Your task to perform on an android device: turn on location history Image 0: 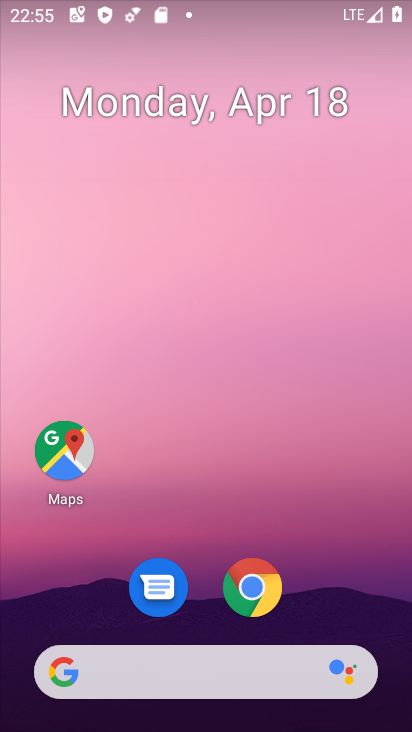
Step 0: drag from (344, 583) to (366, 102)
Your task to perform on an android device: turn on location history Image 1: 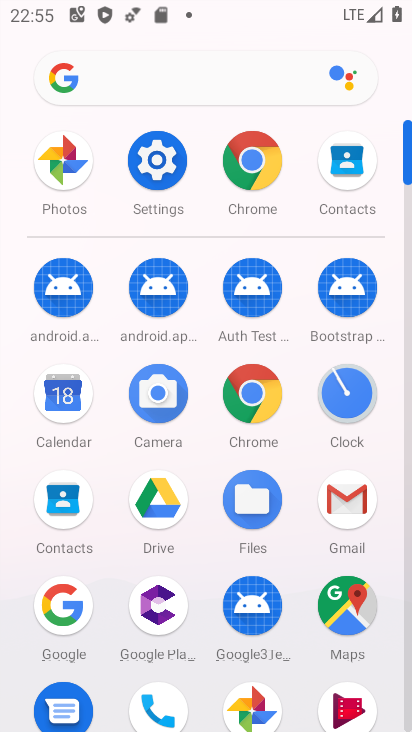
Step 1: click (343, 622)
Your task to perform on an android device: turn on location history Image 2: 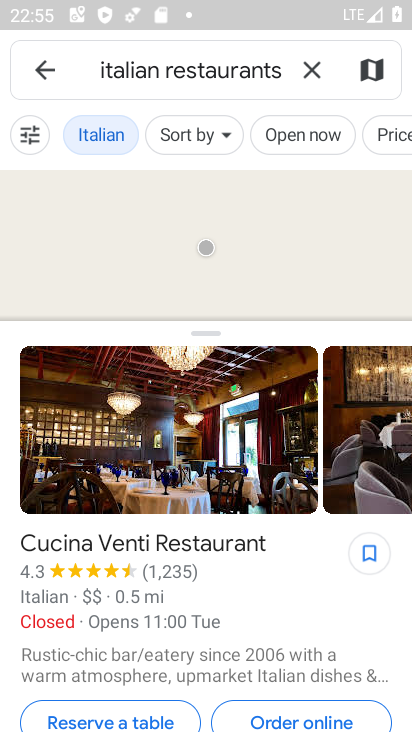
Step 2: click (31, 74)
Your task to perform on an android device: turn on location history Image 3: 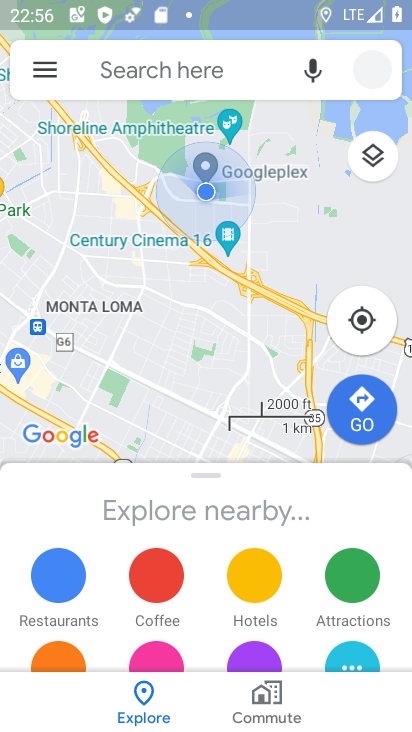
Step 3: click (48, 72)
Your task to perform on an android device: turn on location history Image 4: 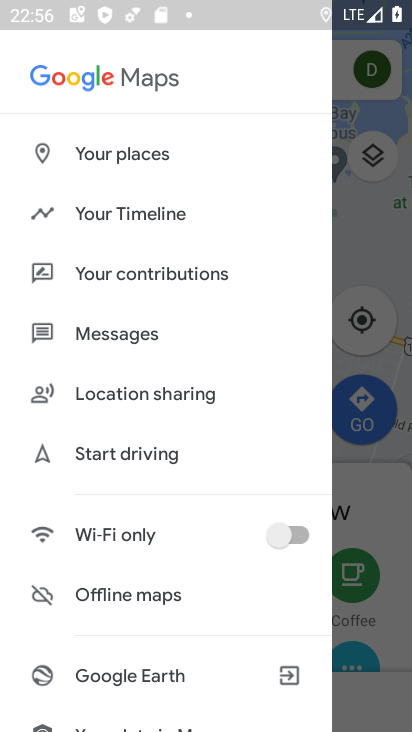
Step 4: click (94, 210)
Your task to perform on an android device: turn on location history Image 5: 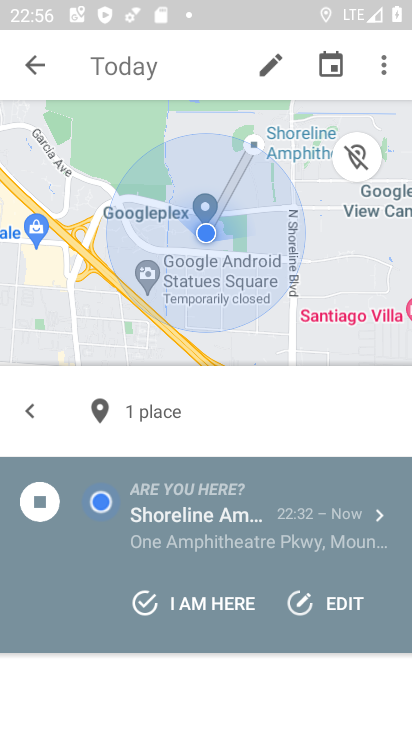
Step 5: click (383, 69)
Your task to perform on an android device: turn on location history Image 6: 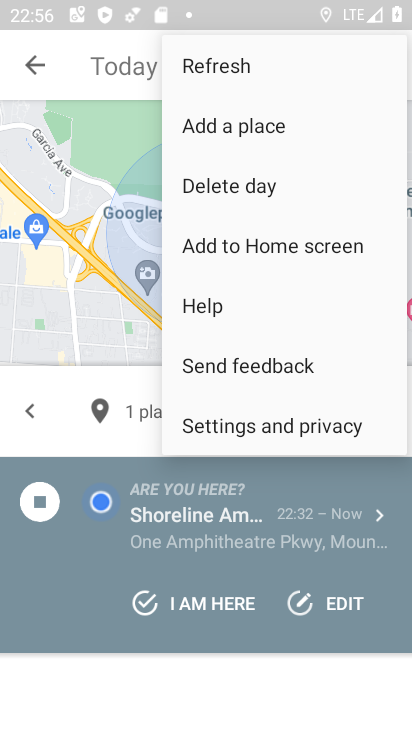
Step 6: click (282, 410)
Your task to perform on an android device: turn on location history Image 7: 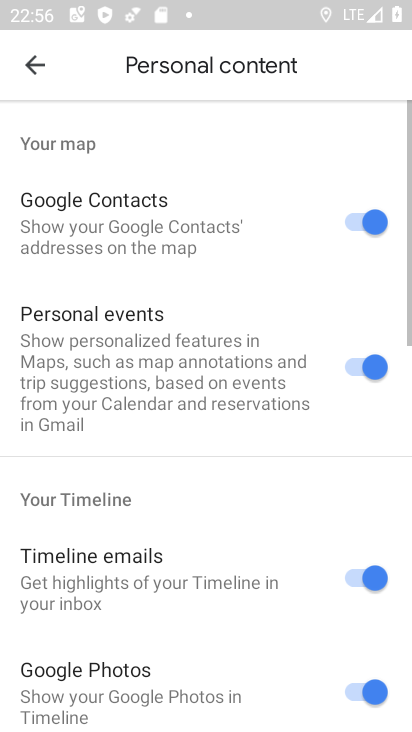
Step 7: task complete